Your task to perform on an android device: Open wifi settings Image 0: 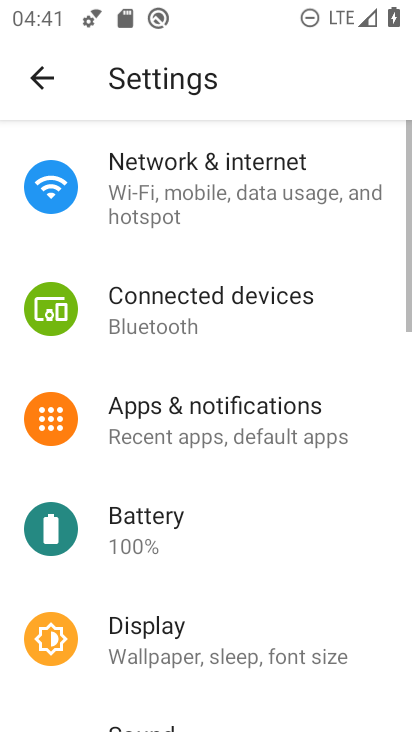
Step 0: press home button
Your task to perform on an android device: Open wifi settings Image 1: 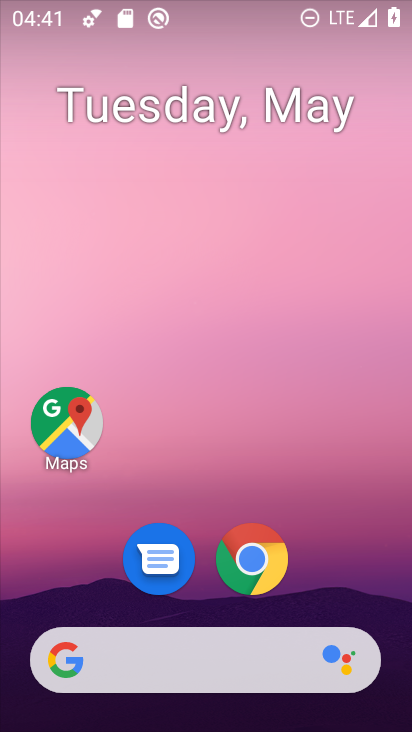
Step 1: drag from (259, 725) to (264, 172)
Your task to perform on an android device: Open wifi settings Image 2: 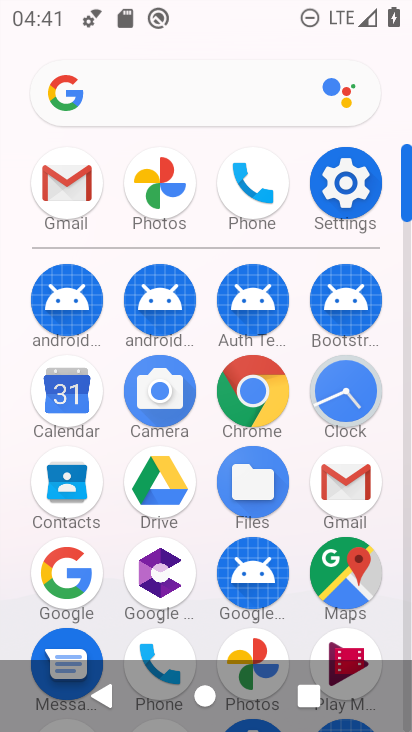
Step 2: click (359, 180)
Your task to perform on an android device: Open wifi settings Image 3: 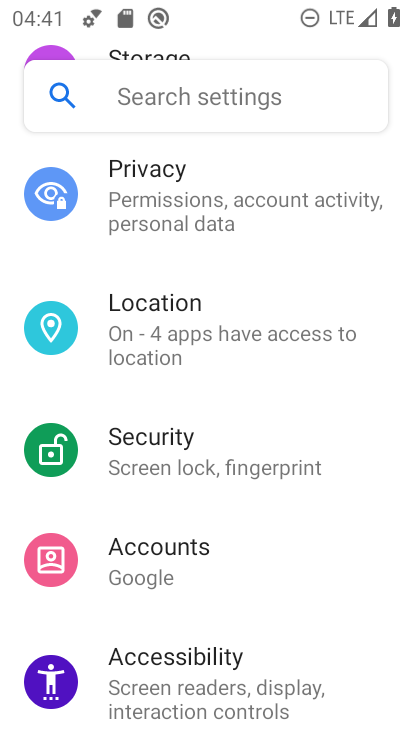
Step 3: drag from (248, 178) to (258, 605)
Your task to perform on an android device: Open wifi settings Image 4: 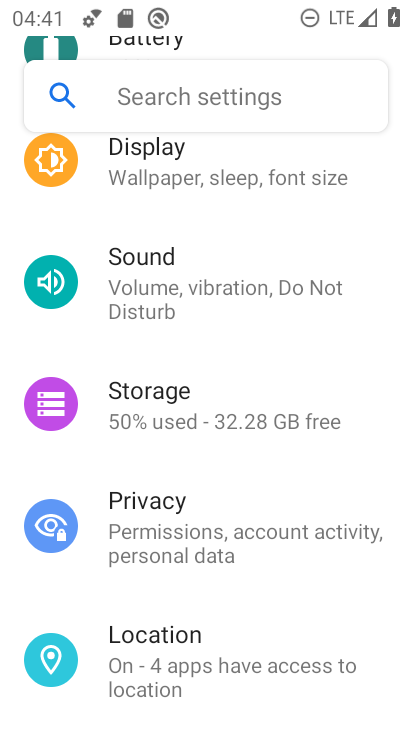
Step 4: drag from (229, 163) to (223, 627)
Your task to perform on an android device: Open wifi settings Image 5: 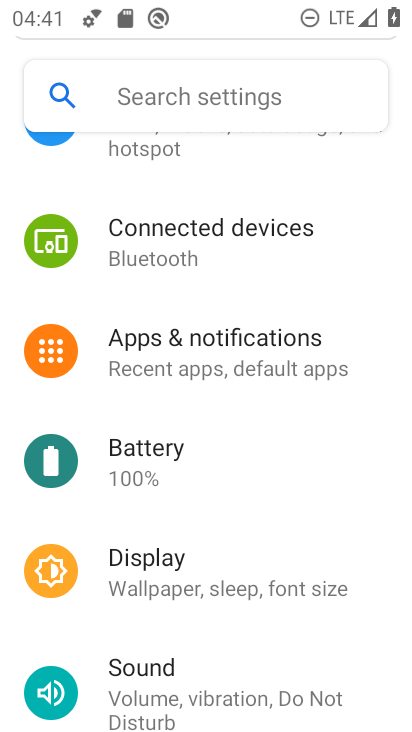
Step 5: drag from (335, 171) to (325, 557)
Your task to perform on an android device: Open wifi settings Image 6: 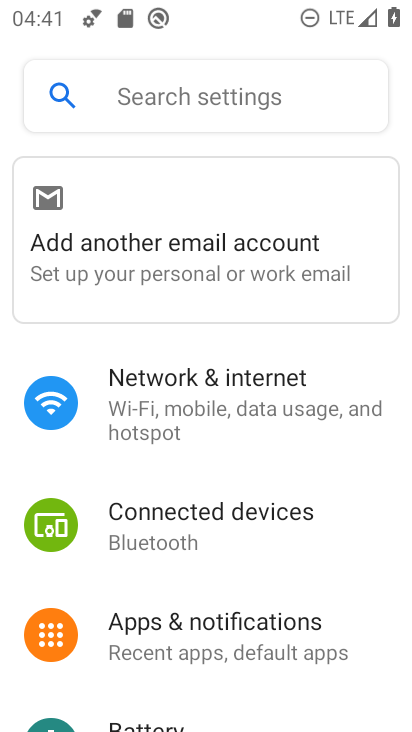
Step 6: click (182, 398)
Your task to perform on an android device: Open wifi settings Image 7: 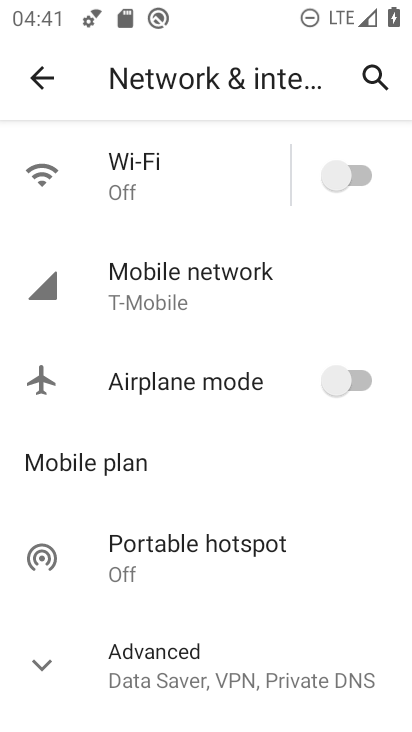
Step 7: click (130, 173)
Your task to perform on an android device: Open wifi settings Image 8: 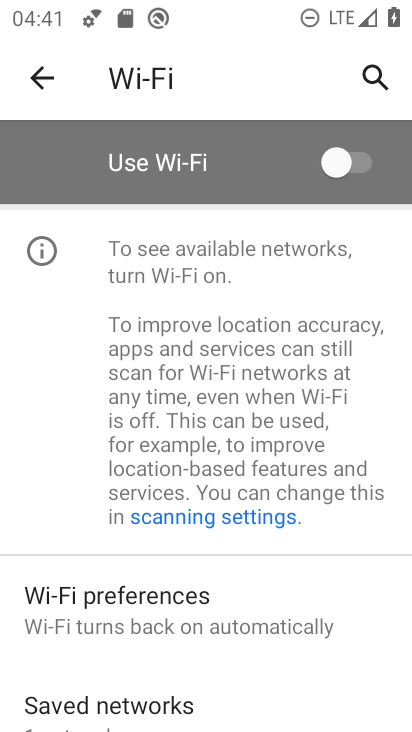
Step 8: task complete